Your task to perform on an android device: turn pop-ups on in chrome Image 0: 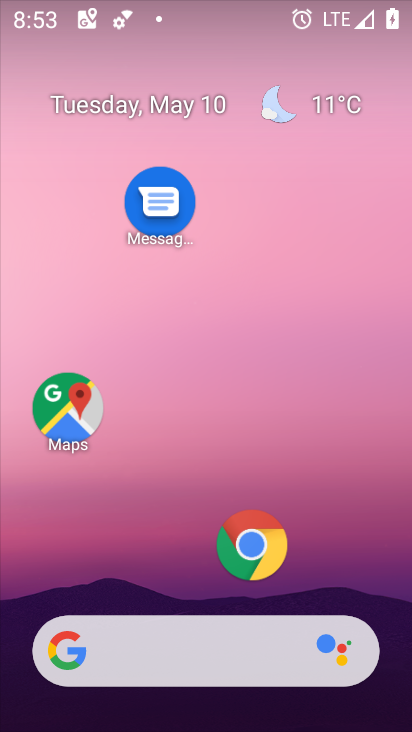
Step 0: click (253, 538)
Your task to perform on an android device: turn pop-ups on in chrome Image 1: 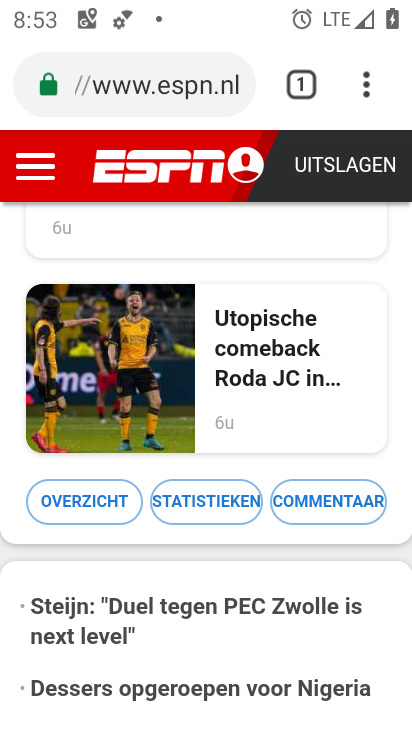
Step 1: click (364, 79)
Your task to perform on an android device: turn pop-ups on in chrome Image 2: 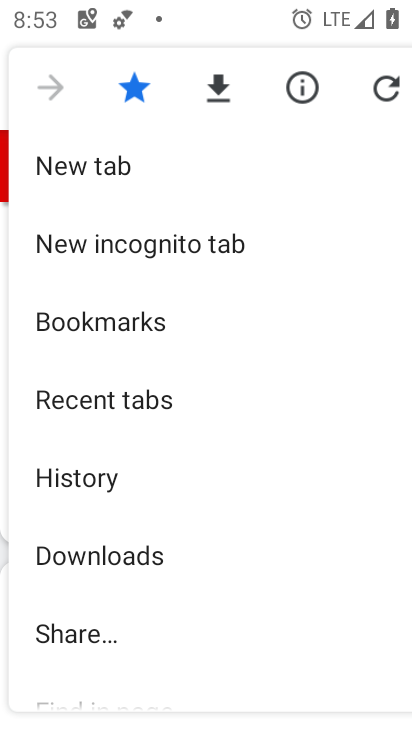
Step 2: drag from (167, 557) to (204, 99)
Your task to perform on an android device: turn pop-ups on in chrome Image 3: 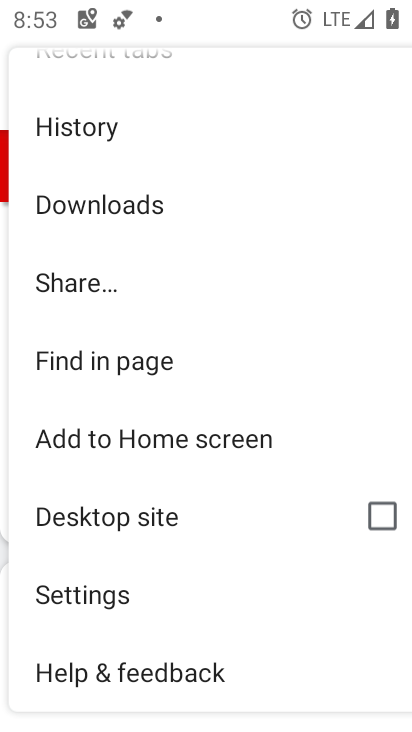
Step 3: click (144, 587)
Your task to perform on an android device: turn pop-ups on in chrome Image 4: 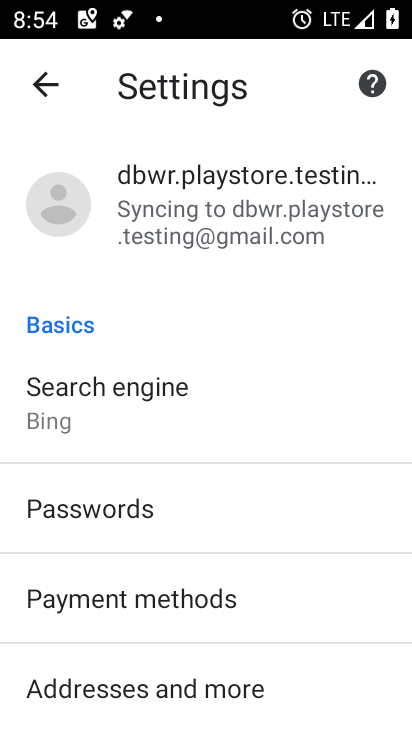
Step 4: drag from (175, 626) to (209, 151)
Your task to perform on an android device: turn pop-ups on in chrome Image 5: 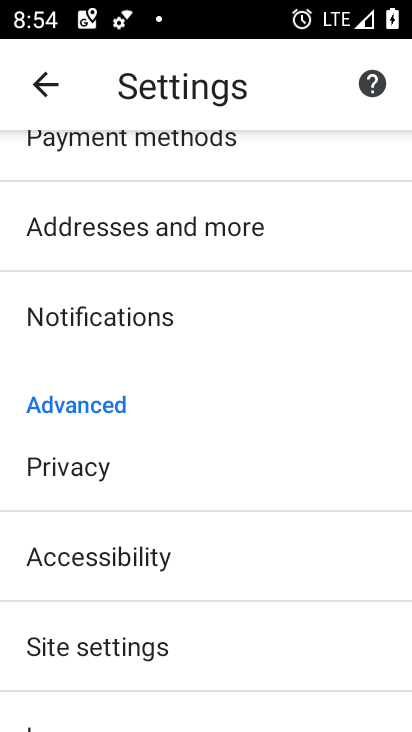
Step 5: drag from (189, 634) to (186, 262)
Your task to perform on an android device: turn pop-ups on in chrome Image 6: 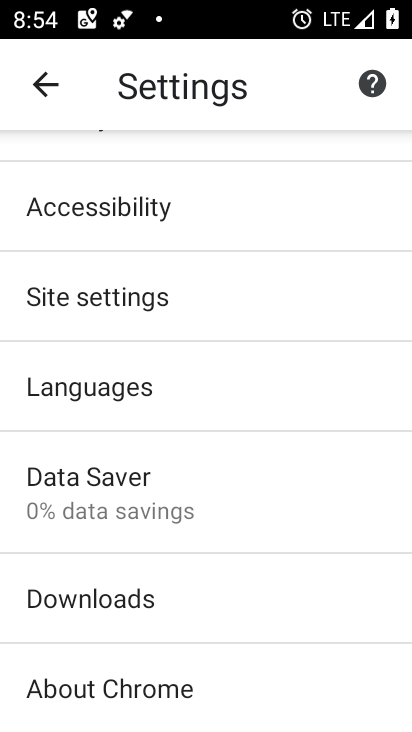
Step 6: click (149, 304)
Your task to perform on an android device: turn pop-ups on in chrome Image 7: 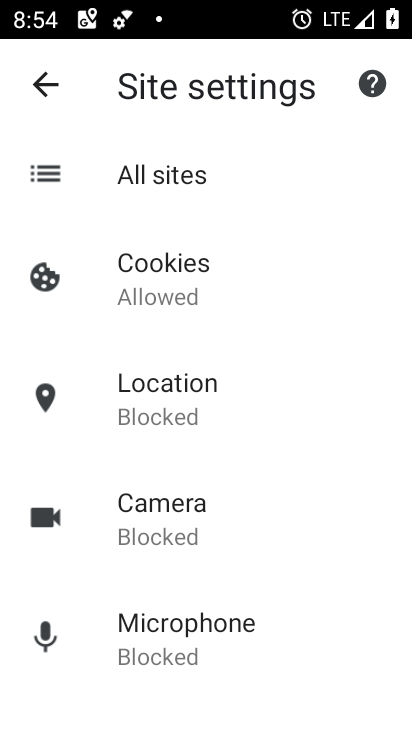
Step 7: drag from (142, 589) to (152, 191)
Your task to perform on an android device: turn pop-ups on in chrome Image 8: 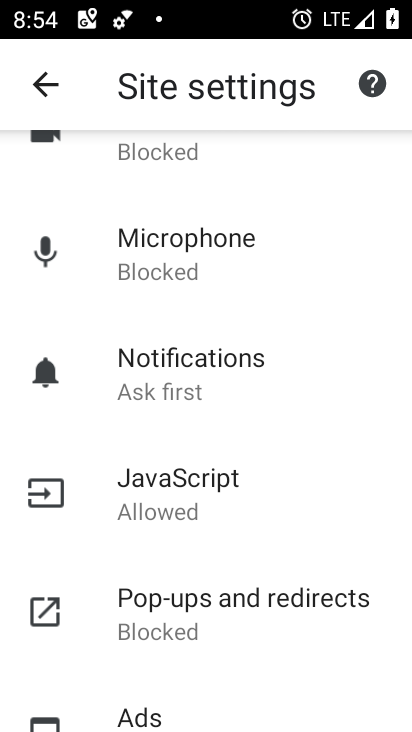
Step 8: click (153, 593)
Your task to perform on an android device: turn pop-ups on in chrome Image 9: 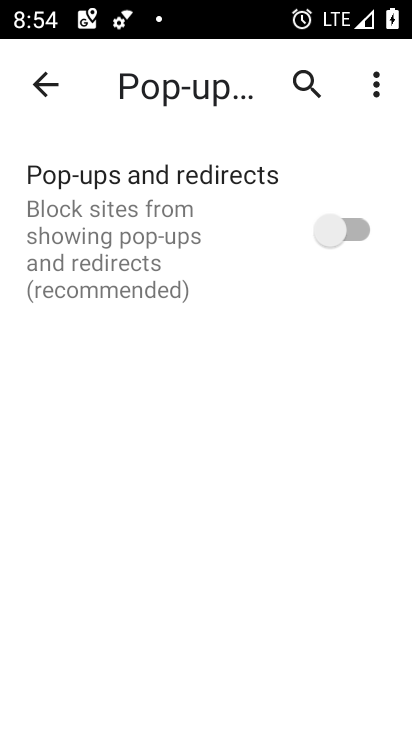
Step 9: click (357, 232)
Your task to perform on an android device: turn pop-ups on in chrome Image 10: 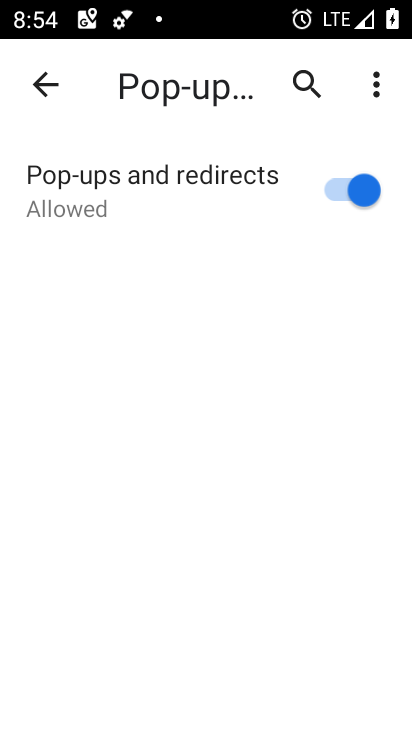
Step 10: task complete